Your task to perform on an android device: What's the weather going to be this weekend? Image 0: 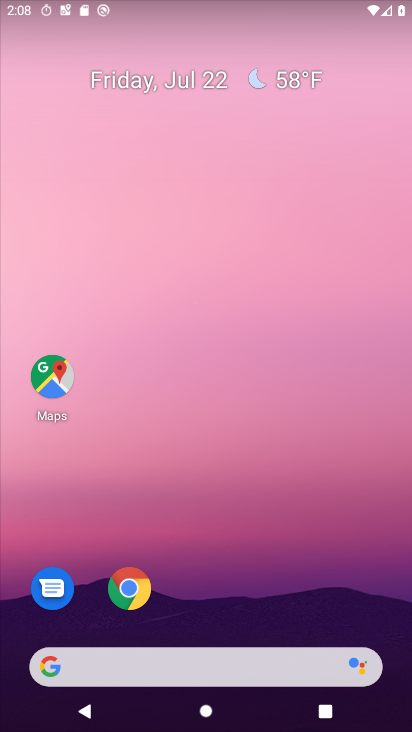
Step 0: press home button
Your task to perform on an android device: What's the weather going to be this weekend? Image 1: 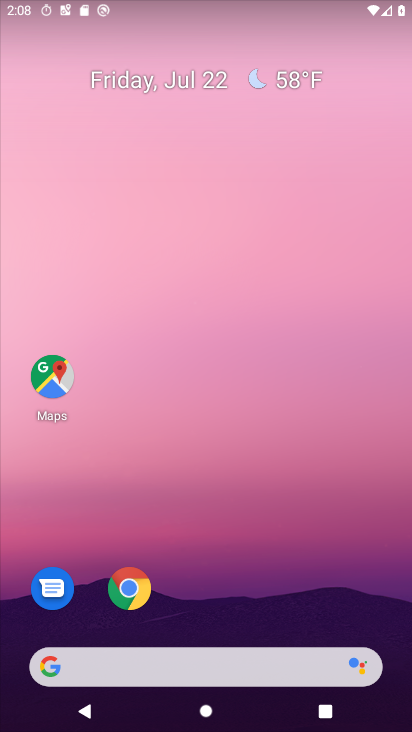
Step 1: click (123, 592)
Your task to perform on an android device: What's the weather going to be this weekend? Image 2: 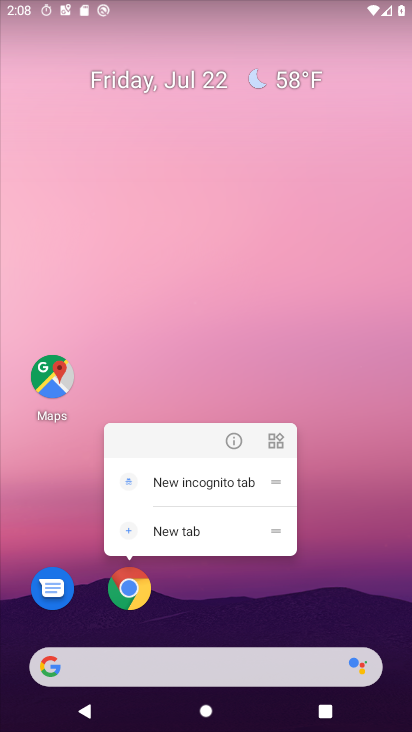
Step 2: click (140, 579)
Your task to perform on an android device: What's the weather going to be this weekend? Image 3: 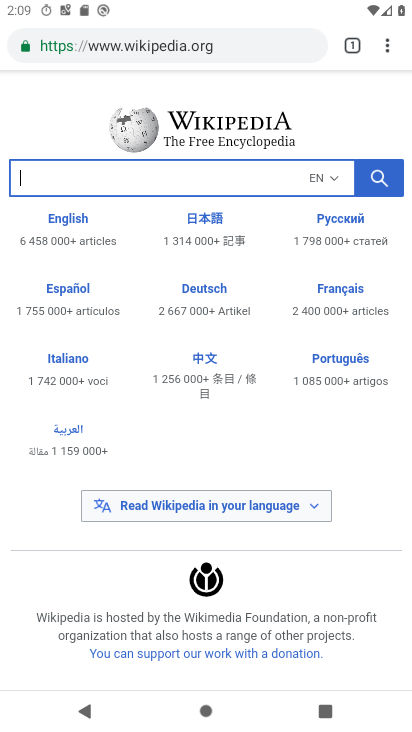
Step 3: click (162, 37)
Your task to perform on an android device: What's the weather going to be this weekend? Image 4: 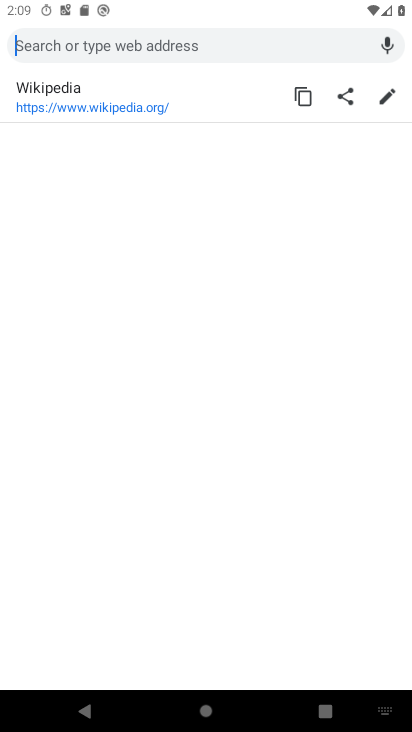
Step 4: type "What's the weather going to be this weekend?"
Your task to perform on an android device: What's the weather going to be this weekend? Image 5: 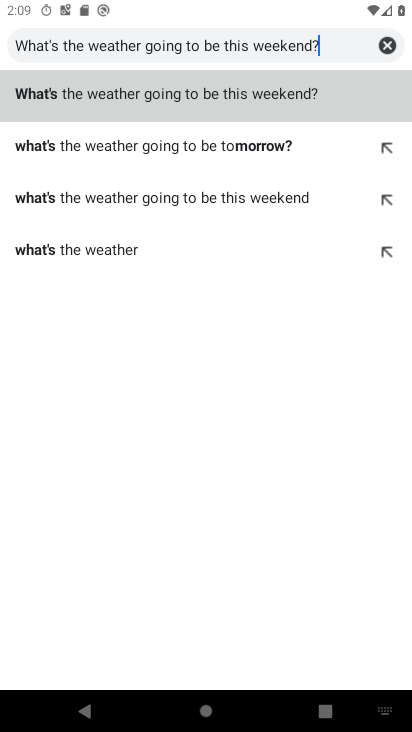
Step 5: type ""
Your task to perform on an android device: What's the weather going to be this weekend? Image 6: 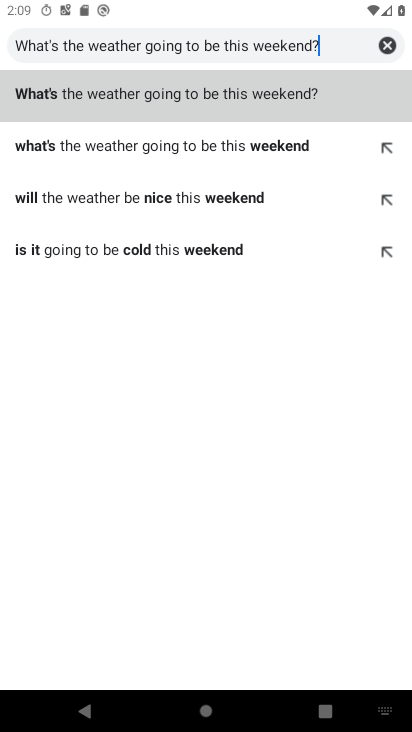
Step 6: click (85, 87)
Your task to perform on an android device: What's the weather going to be this weekend? Image 7: 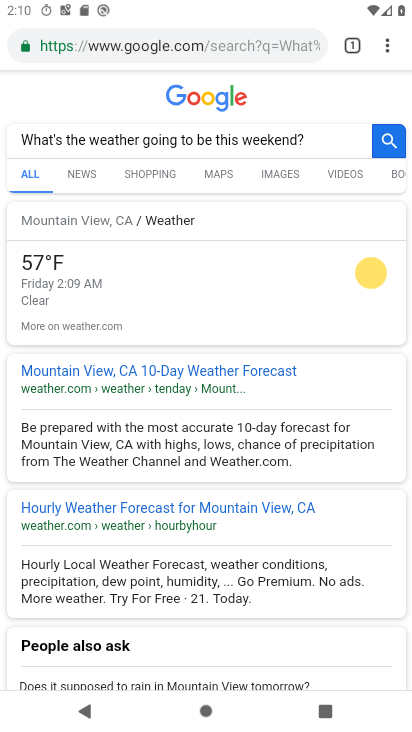
Step 7: task complete